Your task to perform on an android device: Open Google Chrome Image 0: 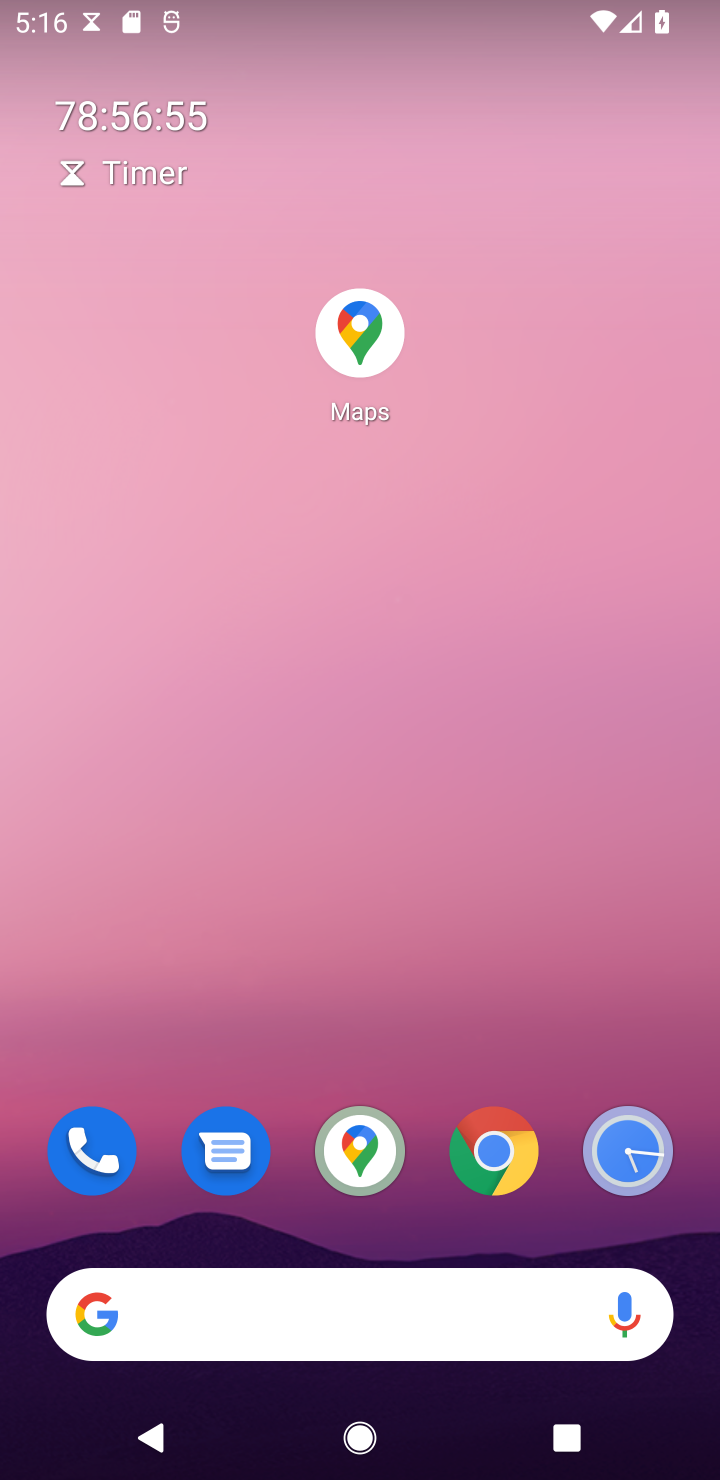
Step 0: drag from (214, 1248) to (277, 705)
Your task to perform on an android device: Open Google Chrome Image 1: 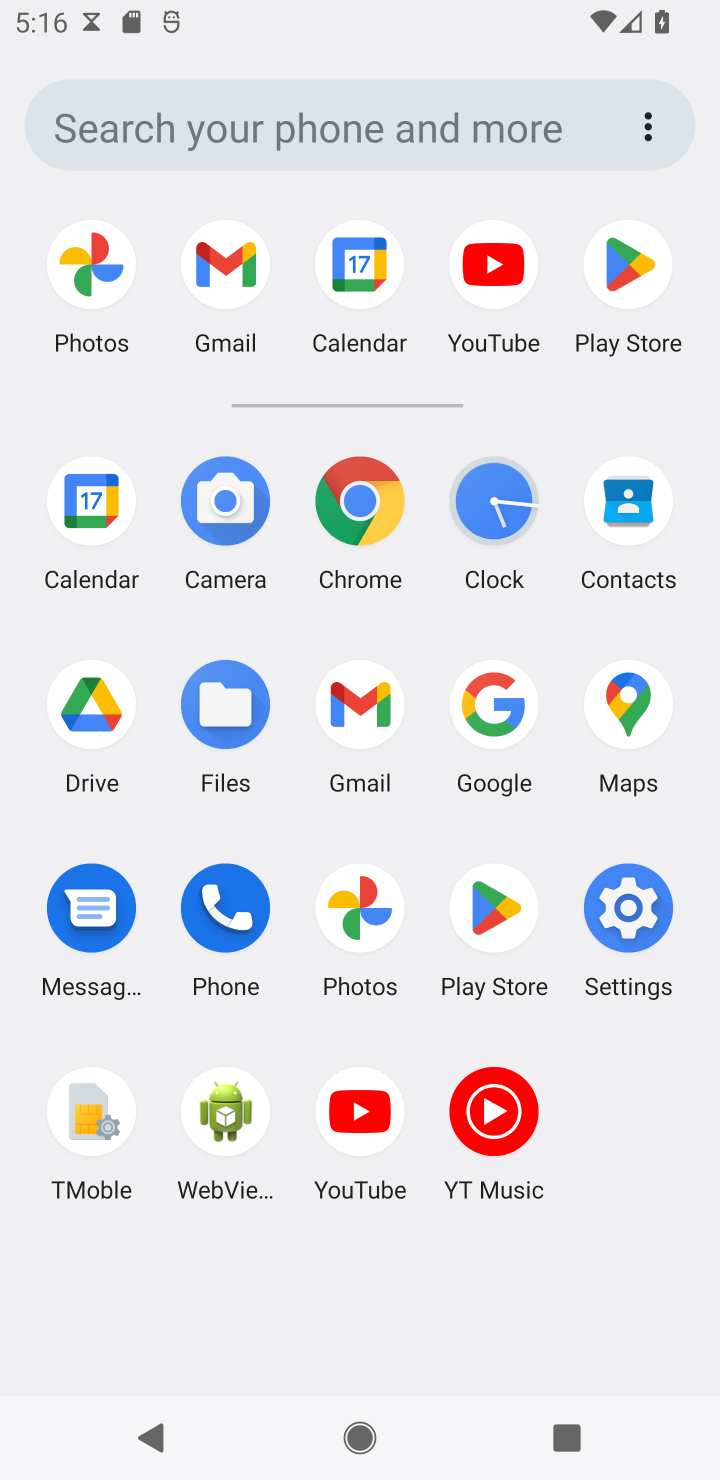
Step 1: click (349, 493)
Your task to perform on an android device: Open Google Chrome Image 2: 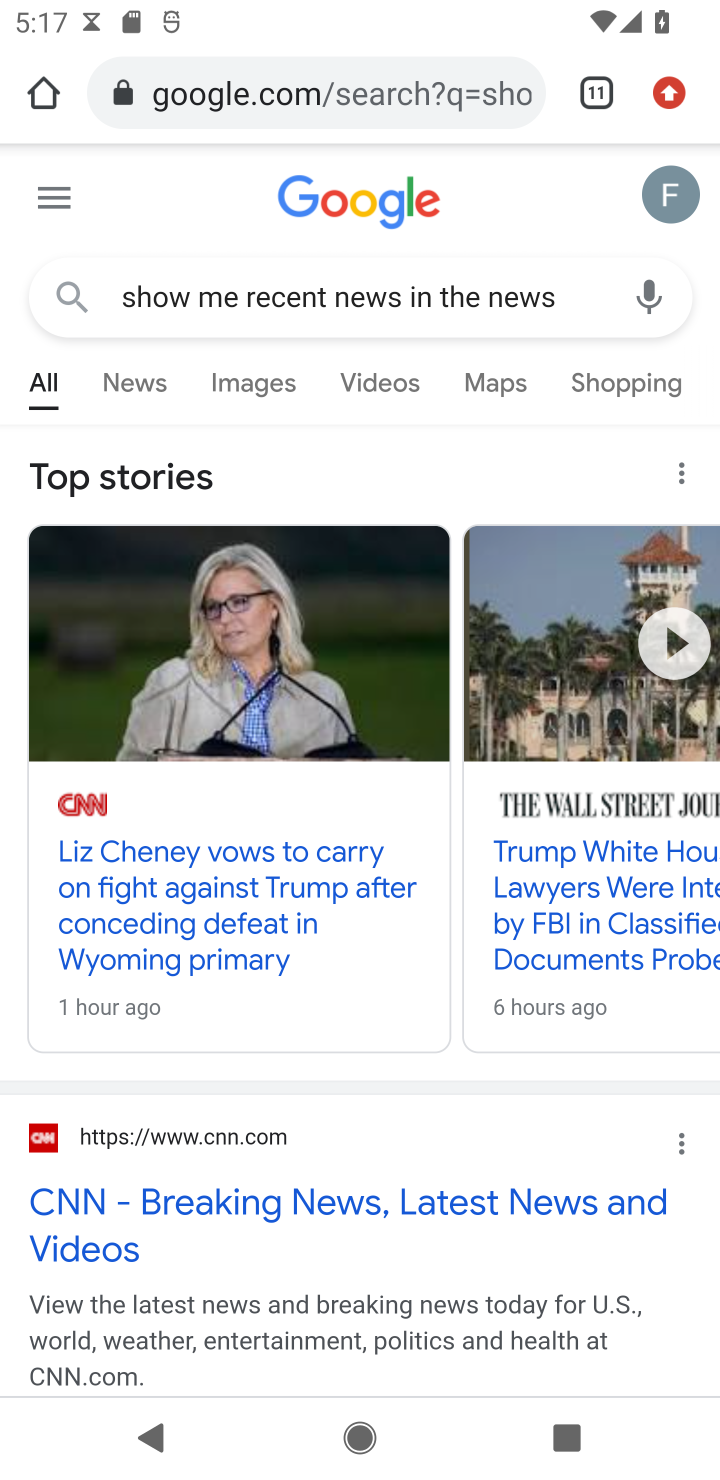
Step 2: click (674, 84)
Your task to perform on an android device: Open Google Chrome Image 3: 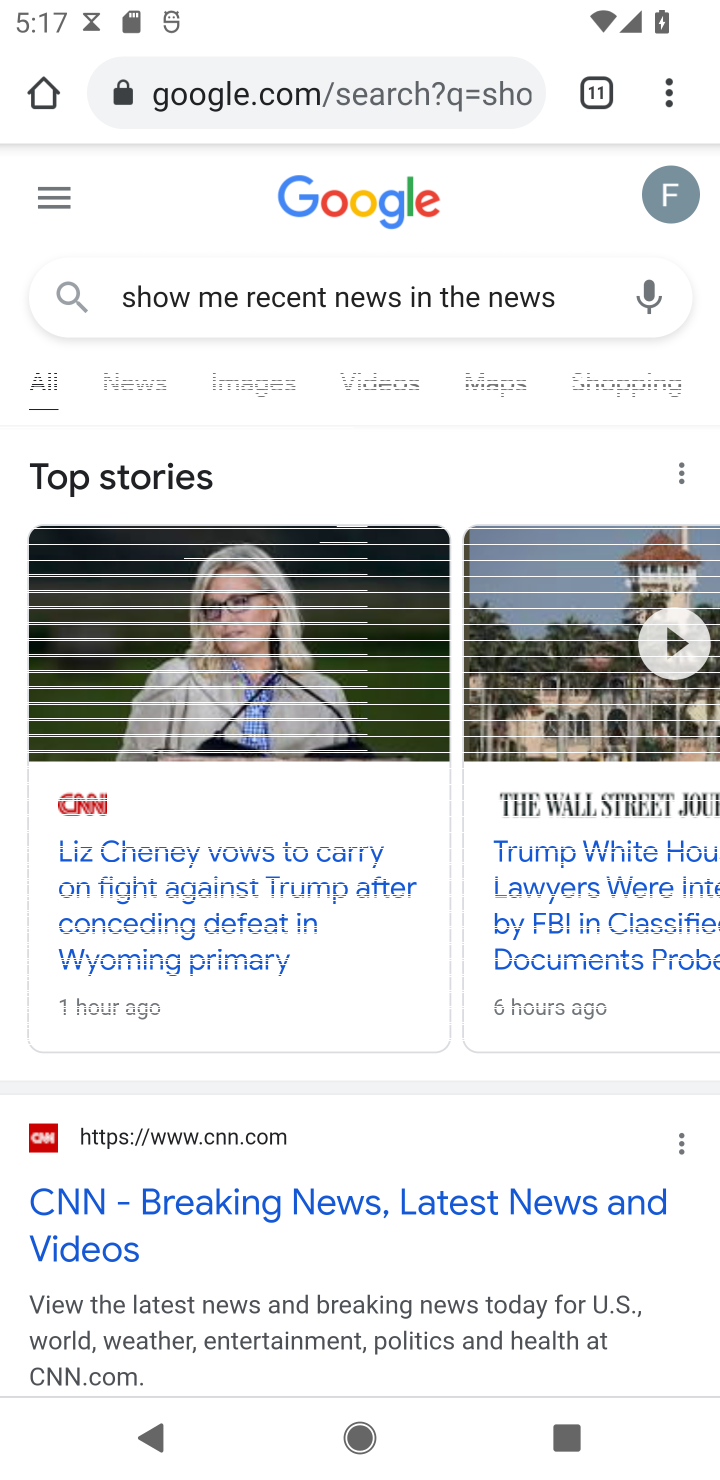
Step 3: task complete